Your task to perform on an android device: Open internet settings Image 0: 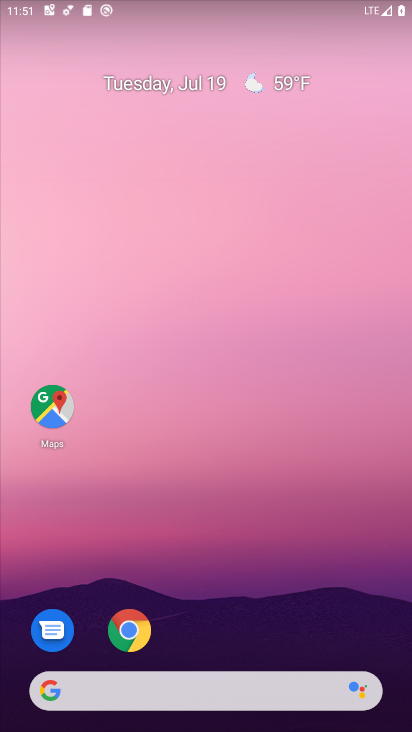
Step 0: drag from (373, 639) to (341, 94)
Your task to perform on an android device: Open internet settings Image 1: 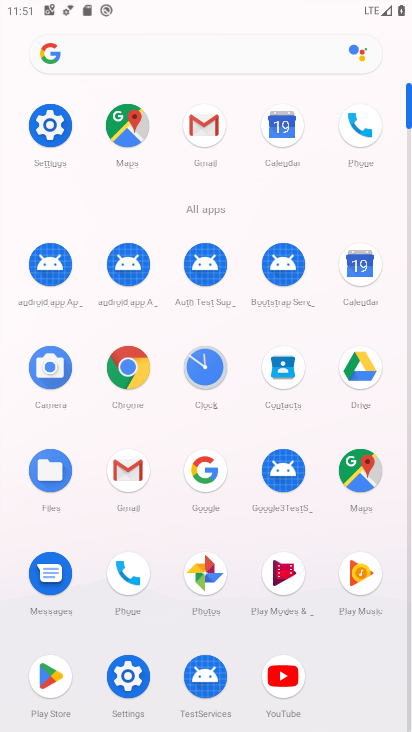
Step 1: click (130, 677)
Your task to perform on an android device: Open internet settings Image 2: 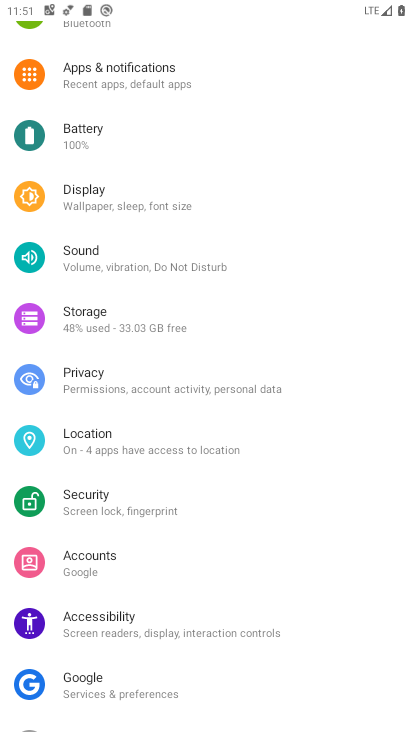
Step 2: drag from (279, 122) to (285, 427)
Your task to perform on an android device: Open internet settings Image 3: 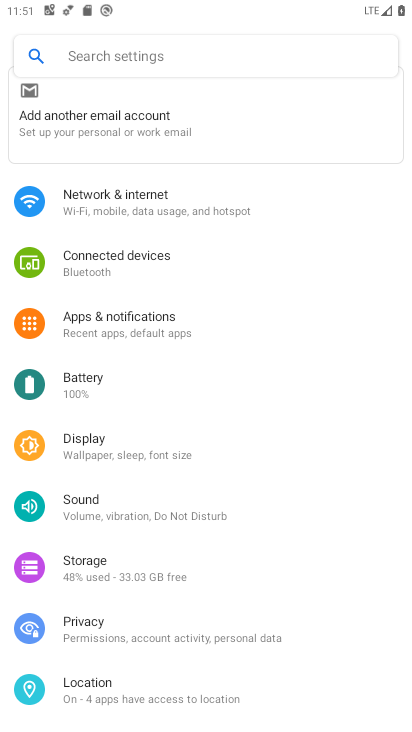
Step 3: click (84, 192)
Your task to perform on an android device: Open internet settings Image 4: 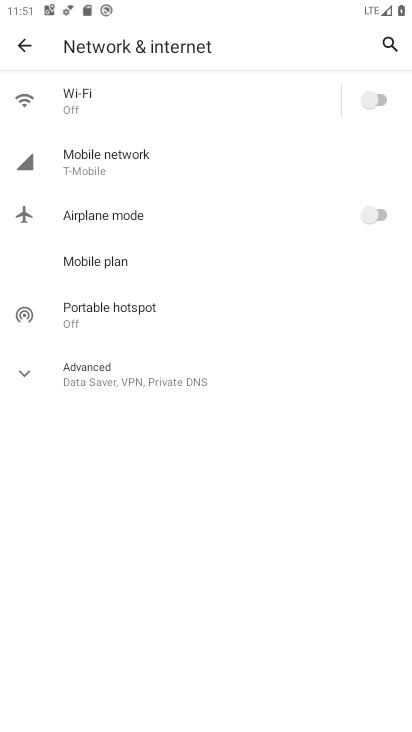
Step 4: click (52, 86)
Your task to perform on an android device: Open internet settings Image 5: 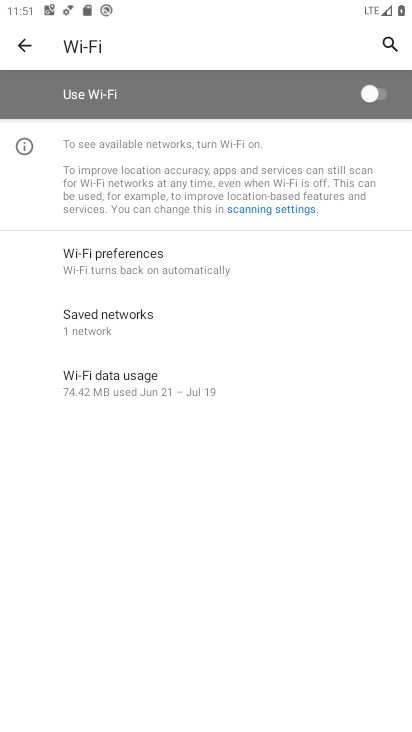
Step 5: task complete